Your task to perform on an android device: toggle airplane mode Image 0: 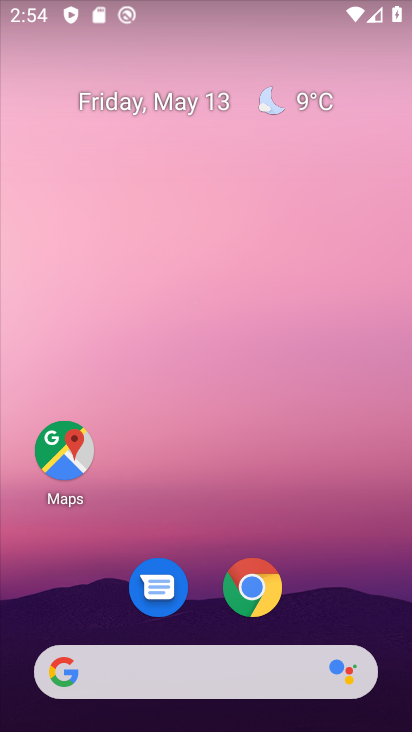
Step 0: drag from (328, 580) to (322, 179)
Your task to perform on an android device: toggle airplane mode Image 1: 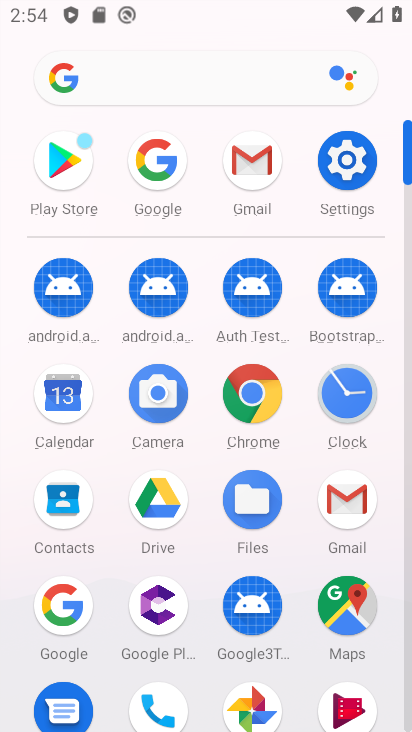
Step 1: click (344, 170)
Your task to perform on an android device: toggle airplane mode Image 2: 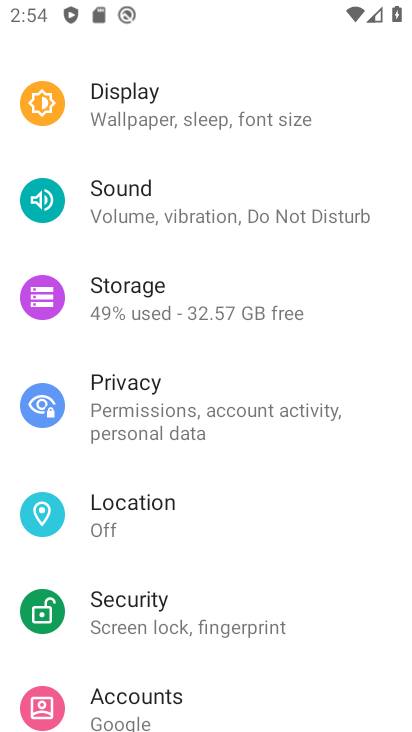
Step 2: drag from (218, 204) to (186, 607)
Your task to perform on an android device: toggle airplane mode Image 3: 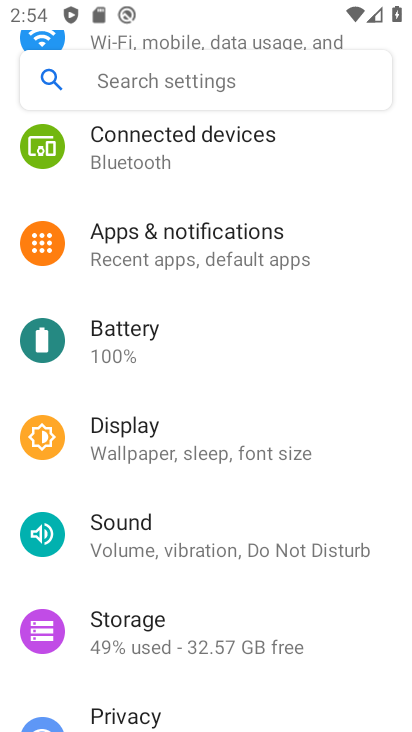
Step 3: drag from (187, 274) to (132, 606)
Your task to perform on an android device: toggle airplane mode Image 4: 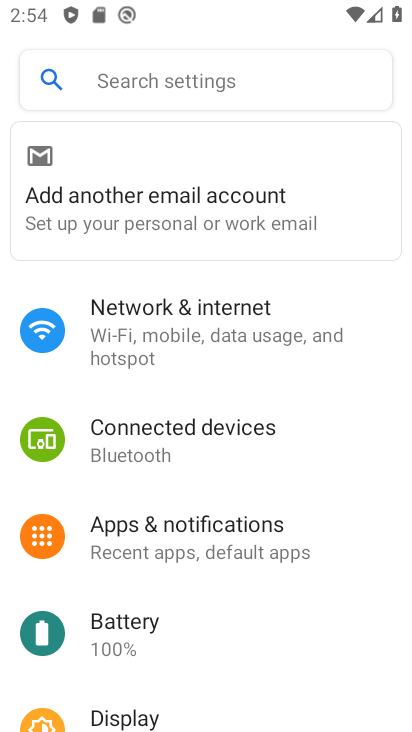
Step 4: click (126, 346)
Your task to perform on an android device: toggle airplane mode Image 5: 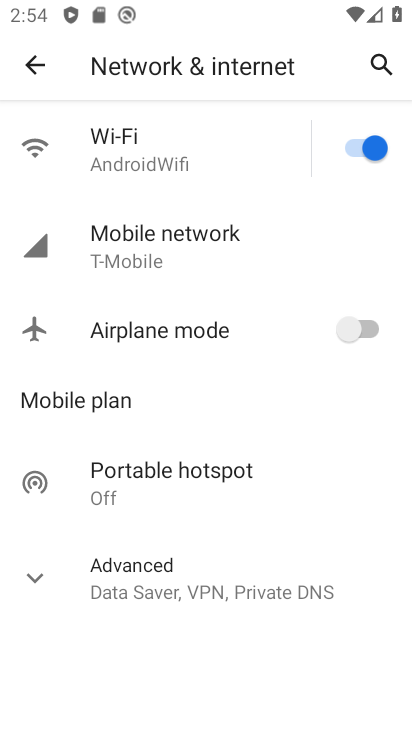
Step 5: click (352, 326)
Your task to perform on an android device: toggle airplane mode Image 6: 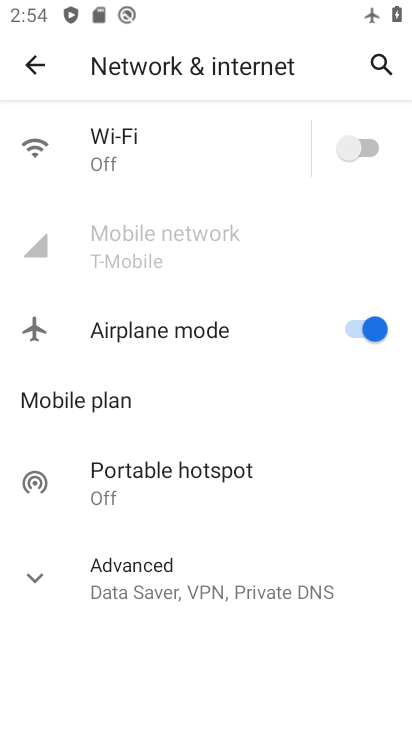
Step 6: task complete